Your task to perform on an android device: Show me recent news Image 0: 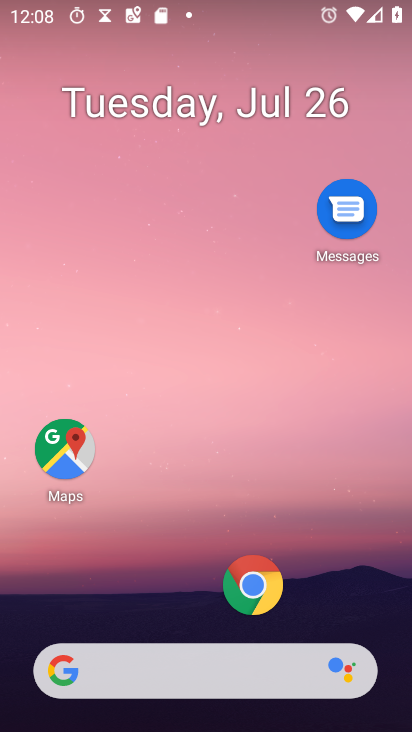
Step 0: press home button
Your task to perform on an android device: Show me recent news Image 1: 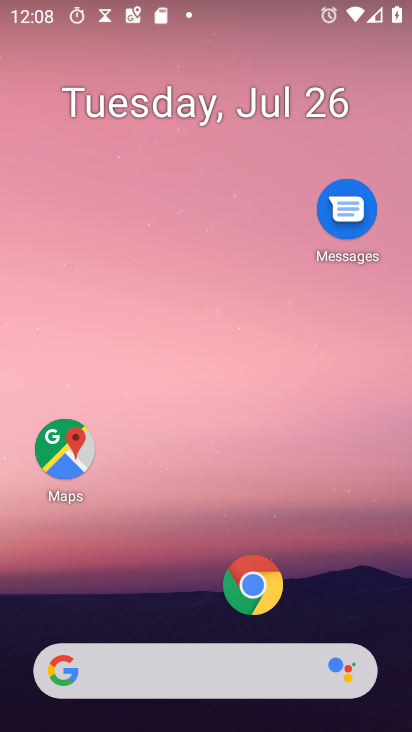
Step 1: click (141, 671)
Your task to perform on an android device: Show me recent news Image 2: 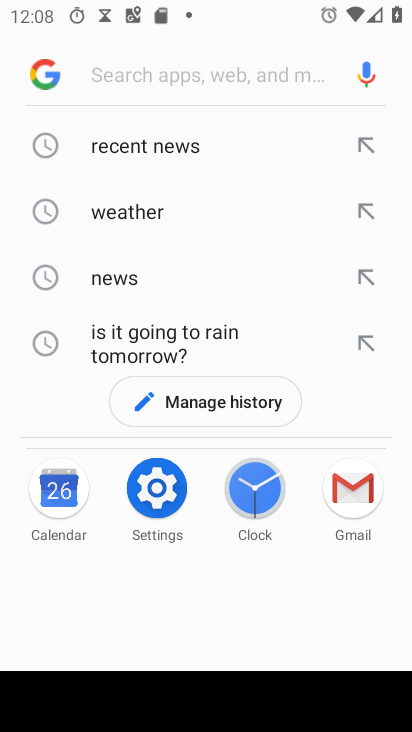
Step 2: click (152, 142)
Your task to perform on an android device: Show me recent news Image 3: 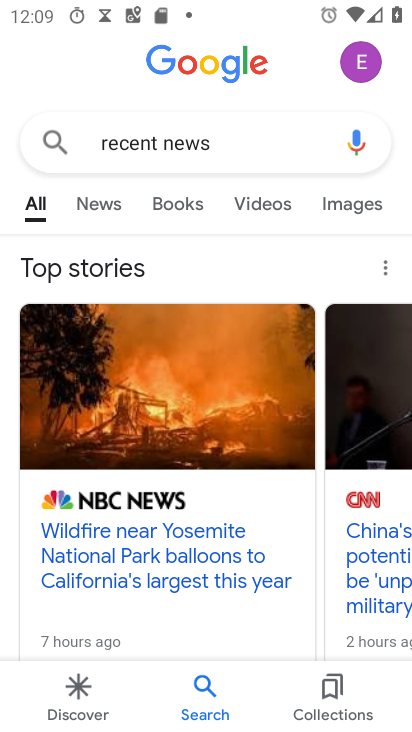
Step 3: click (107, 201)
Your task to perform on an android device: Show me recent news Image 4: 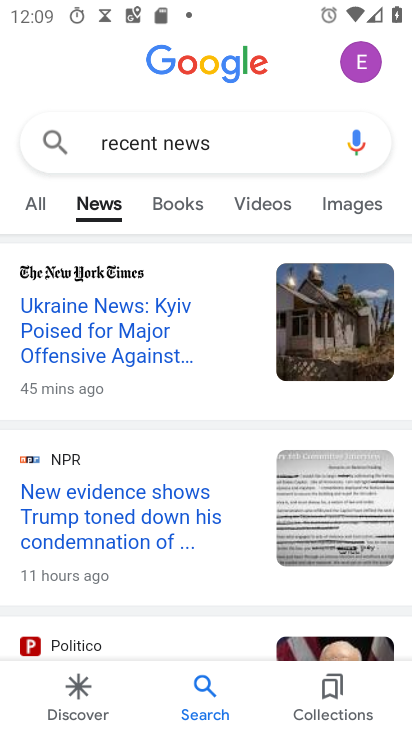
Step 4: task complete